Your task to perform on an android device: check battery use Image 0: 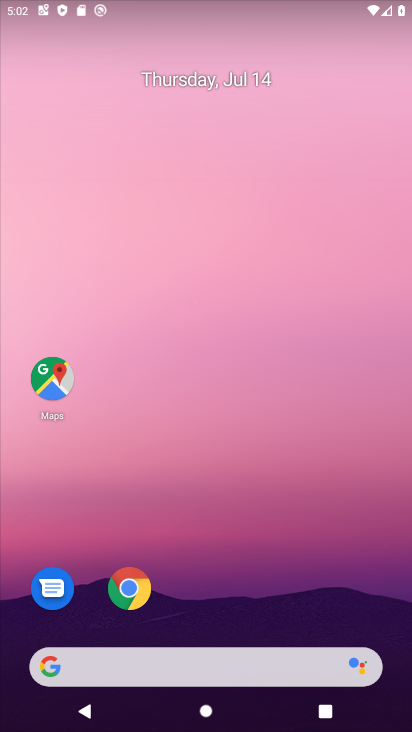
Step 0: drag from (195, 514) to (218, 269)
Your task to perform on an android device: check battery use Image 1: 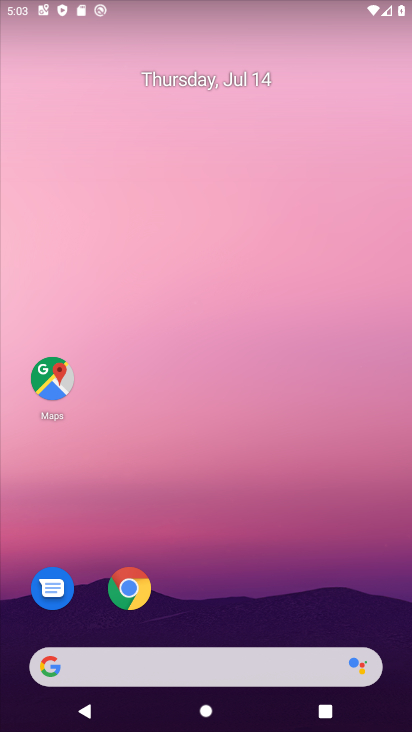
Step 1: drag from (204, 580) to (259, 203)
Your task to perform on an android device: check battery use Image 2: 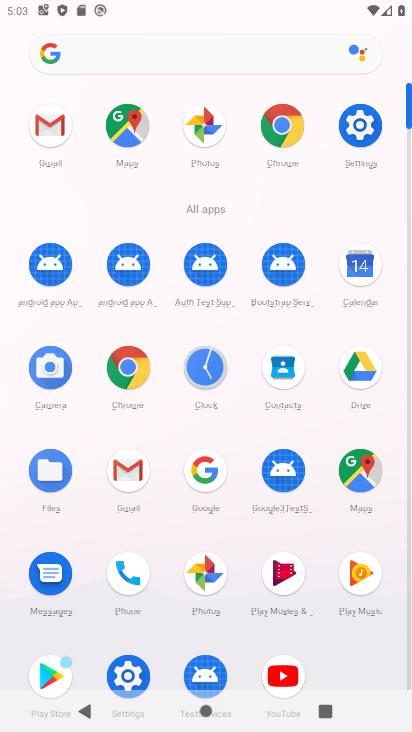
Step 2: click (351, 127)
Your task to perform on an android device: check battery use Image 3: 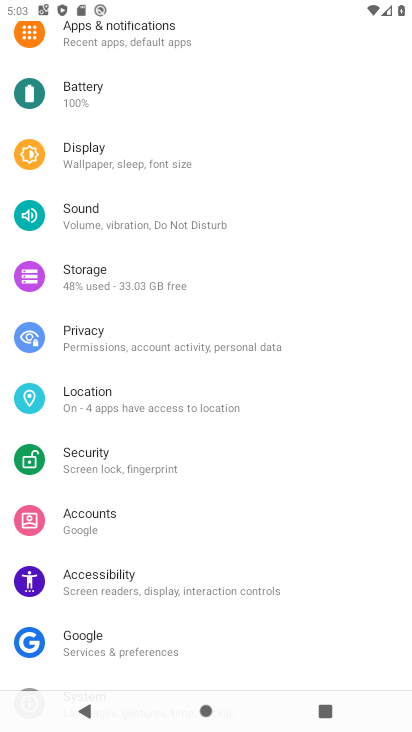
Step 3: click (93, 86)
Your task to perform on an android device: check battery use Image 4: 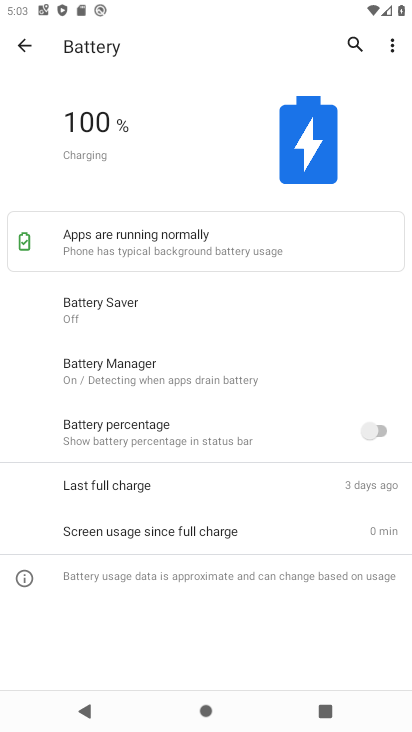
Step 4: click (392, 40)
Your task to perform on an android device: check battery use Image 5: 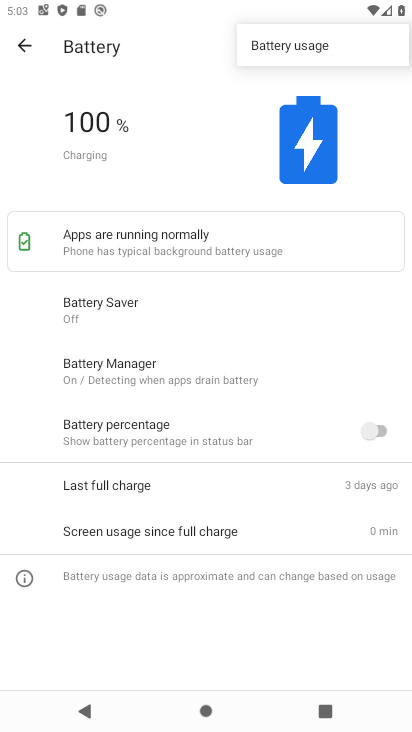
Step 5: click (276, 47)
Your task to perform on an android device: check battery use Image 6: 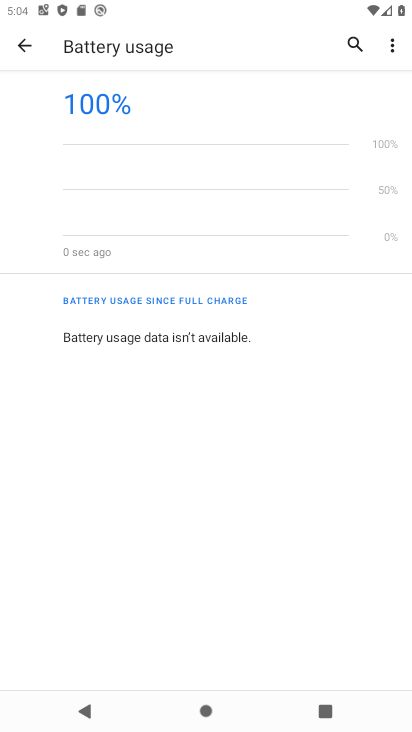
Step 6: task complete